Your task to perform on an android device: What's on my calendar tomorrow? Image 0: 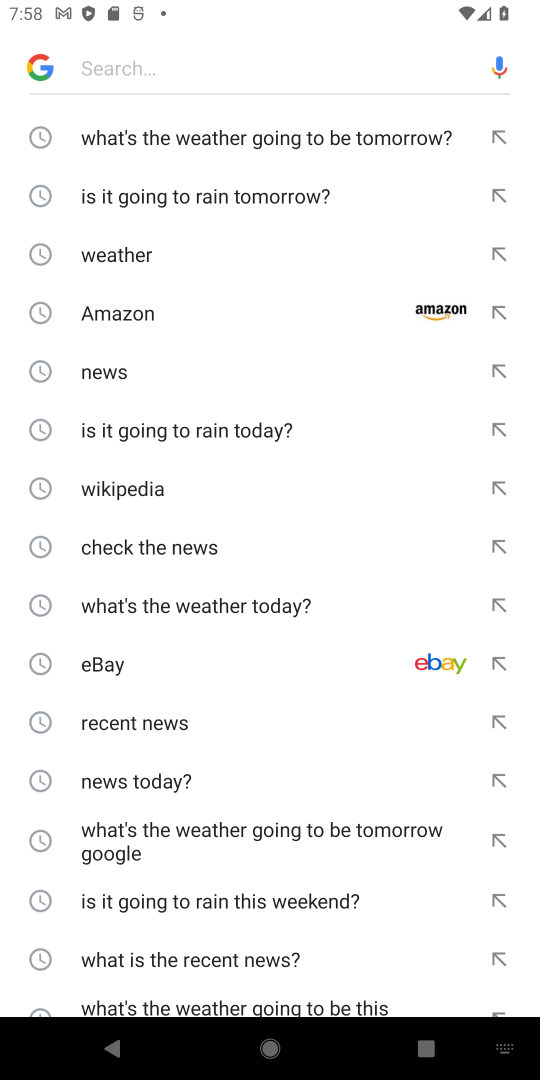
Step 0: press home button
Your task to perform on an android device: What's on my calendar tomorrow? Image 1: 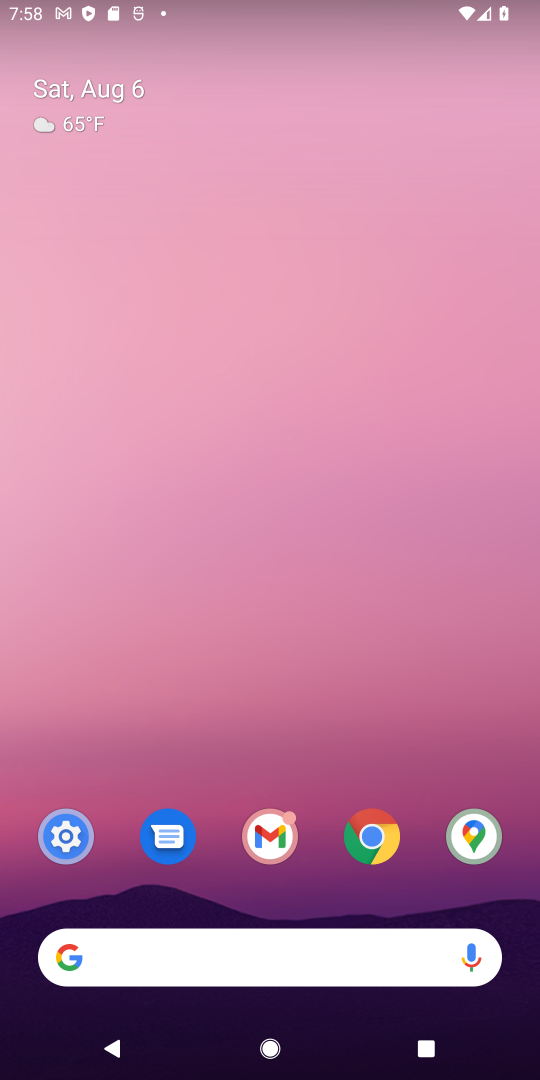
Step 1: drag from (426, 835) to (217, 49)
Your task to perform on an android device: What's on my calendar tomorrow? Image 2: 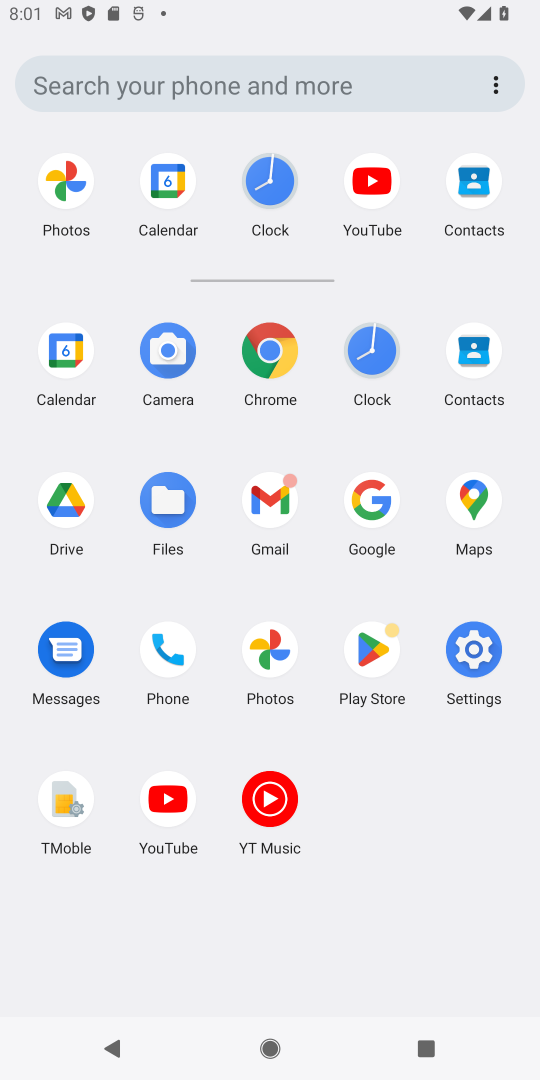
Step 2: click (66, 367)
Your task to perform on an android device: What's on my calendar tomorrow? Image 3: 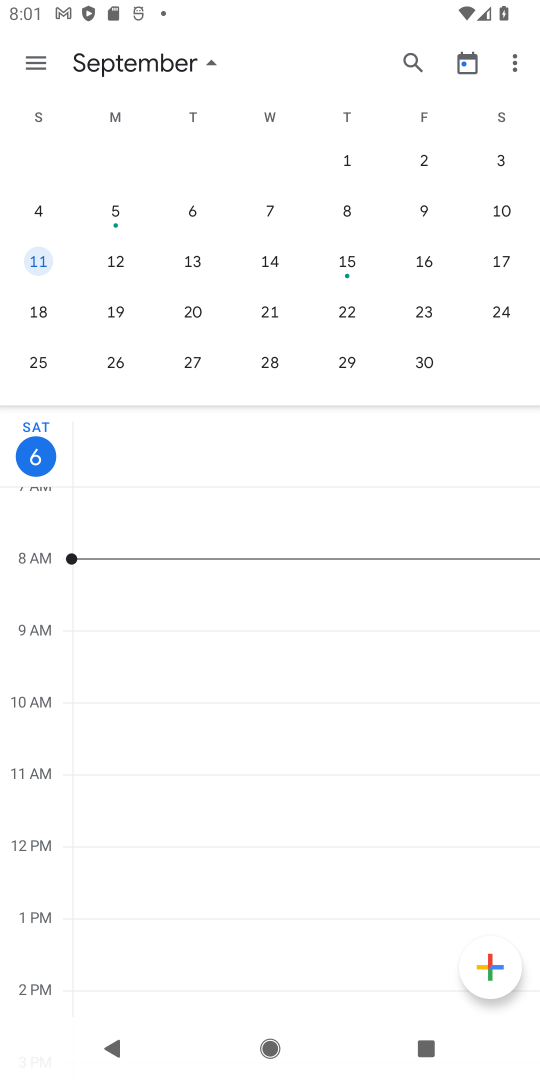
Step 3: task complete